Your task to perform on an android device: Open location settings Image 0: 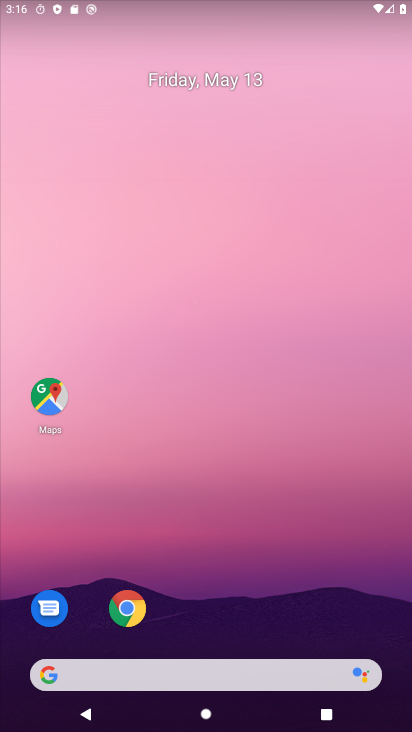
Step 0: drag from (315, 590) to (312, 31)
Your task to perform on an android device: Open location settings Image 1: 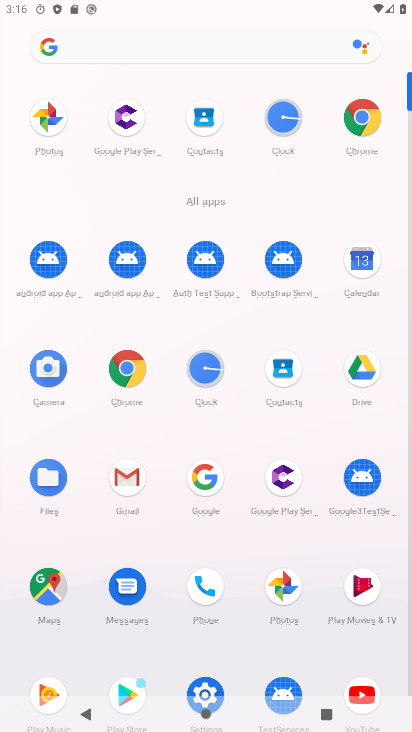
Step 1: click (213, 682)
Your task to perform on an android device: Open location settings Image 2: 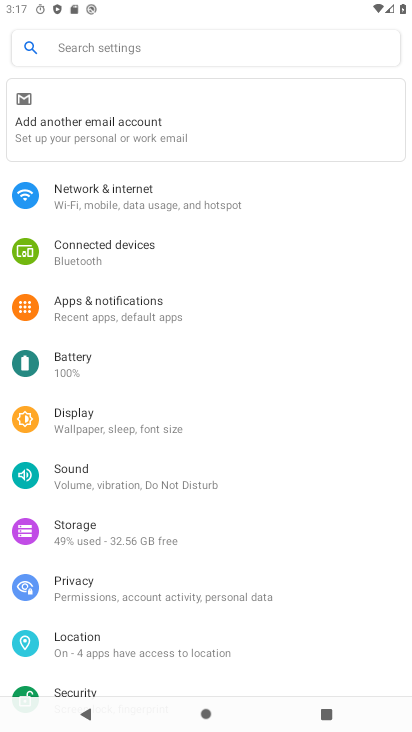
Step 2: click (119, 632)
Your task to perform on an android device: Open location settings Image 3: 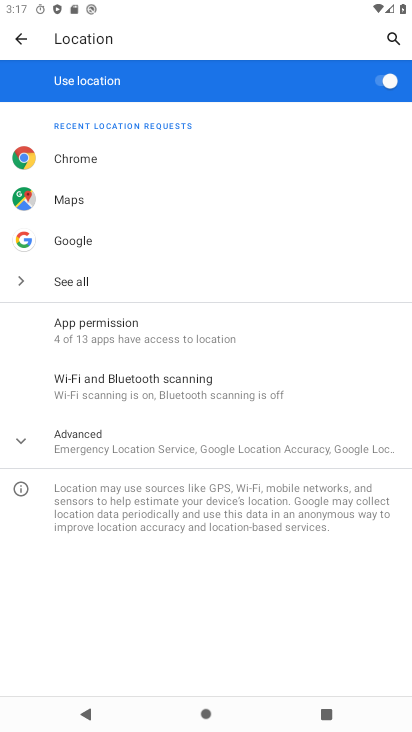
Step 3: task complete